Your task to perform on an android device: stop showing notifications on the lock screen Image 0: 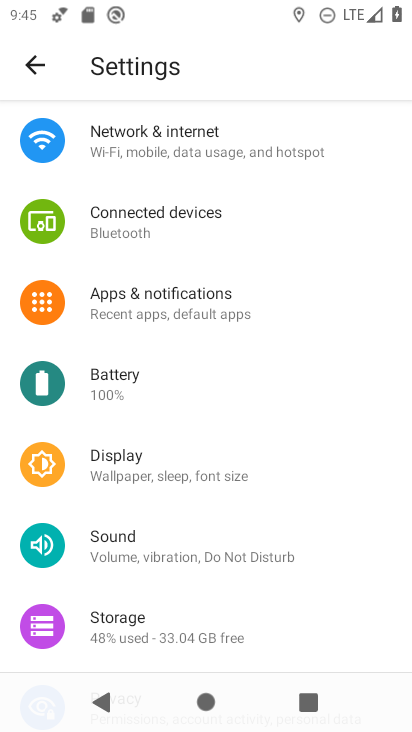
Step 0: press home button
Your task to perform on an android device: stop showing notifications on the lock screen Image 1: 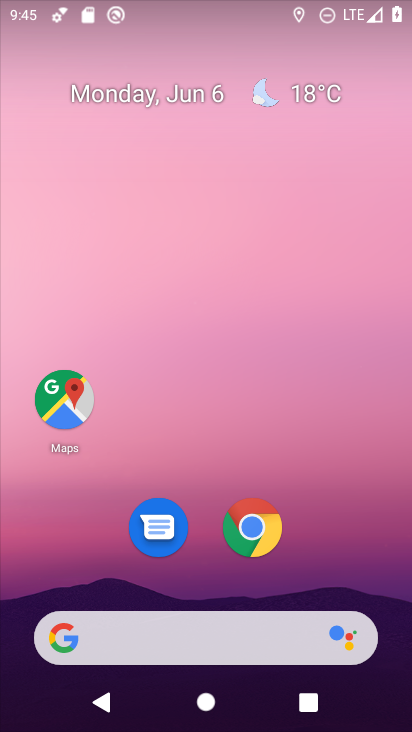
Step 1: drag from (348, 577) to (346, 147)
Your task to perform on an android device: stop showing notifications on the lock screen Image 2: 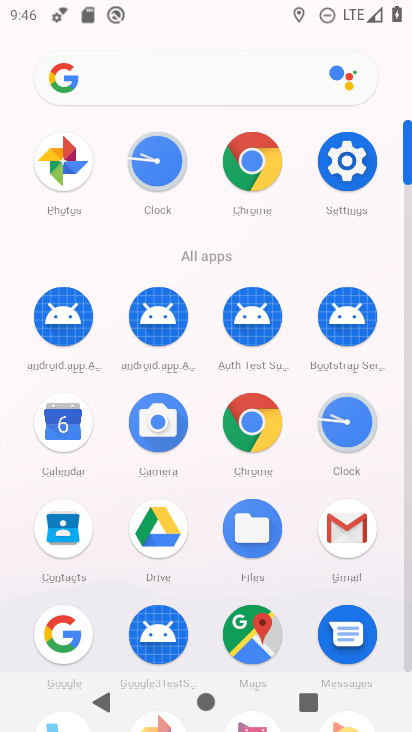
Step 2: click (346, 167)
Your task to perform on an android device: stop showing notifications on the lock screen Image 3: 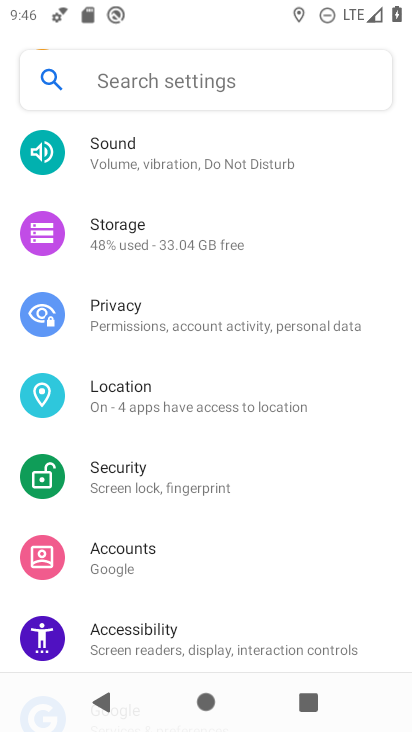
Step 3: drag from (366, 250) to (371, 335)
Your task to perform on an android device: stop showing notifications on the lock screen Image 4: 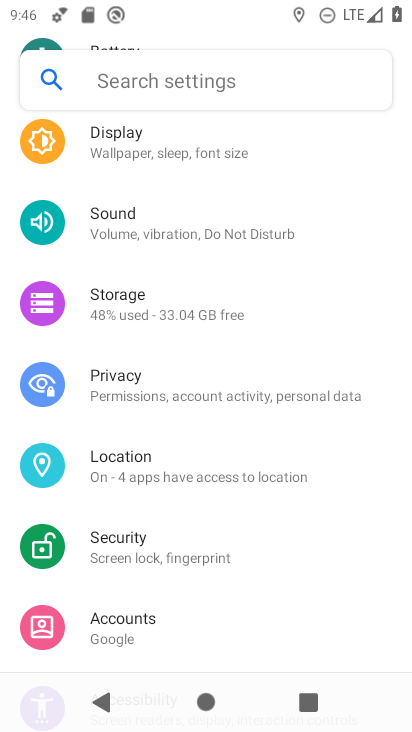
Step 4: drag from (371, 219) to (368, 314)
Your task to perform on an android device: stop showing notifications on the lock screen Image 5: 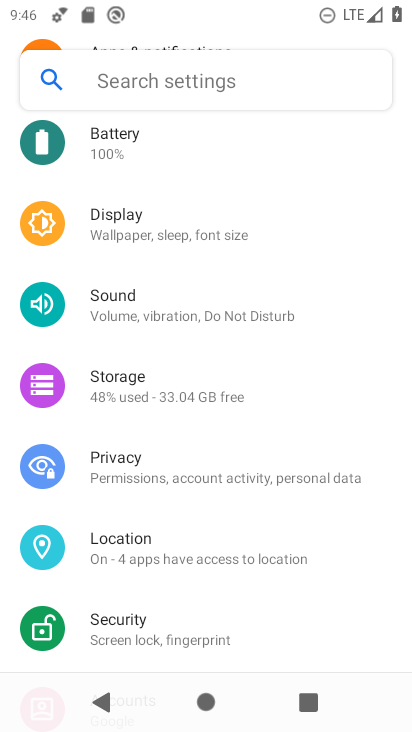
Step 5: drag from (340, 205) to (339, 319)
Your task to perform on an android device: stop showing notifications on the lock screen Image 6: 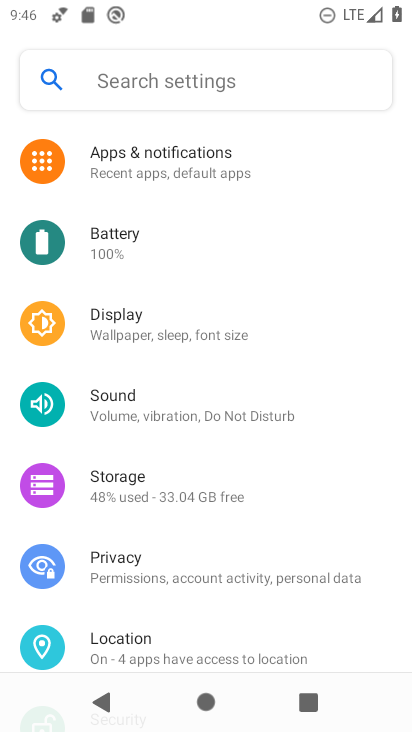
Step 6: drag from (345, 217) to (354, 305)
Your task to perform on an android device: stop showing notifications on the lock screen Image 7: 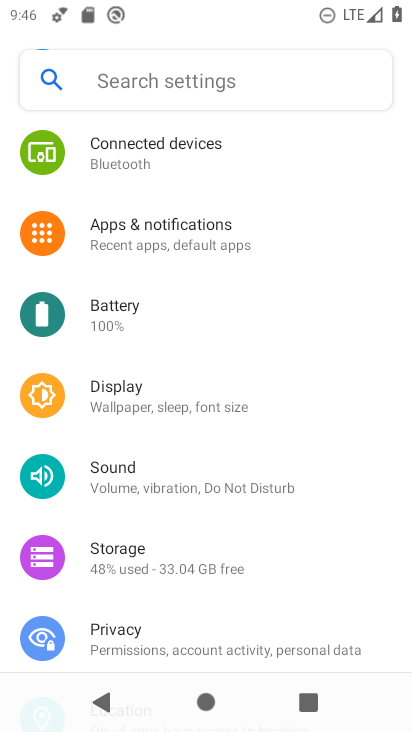
Step 7: drag from (344, 208) to (334, 360)
Your task to perform on an android device: stop showing notifications on the lock screen Image 8: 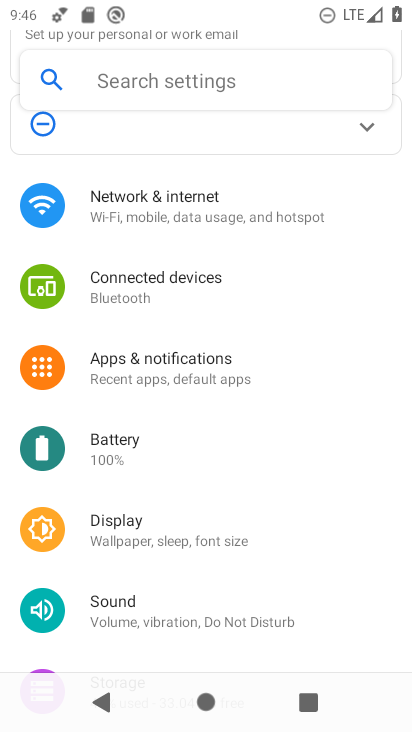
Step 8: drag from (314, 265) to (318, 454)
Your task to perform on an android device: stop showing notifications on the lock screen Image 9: 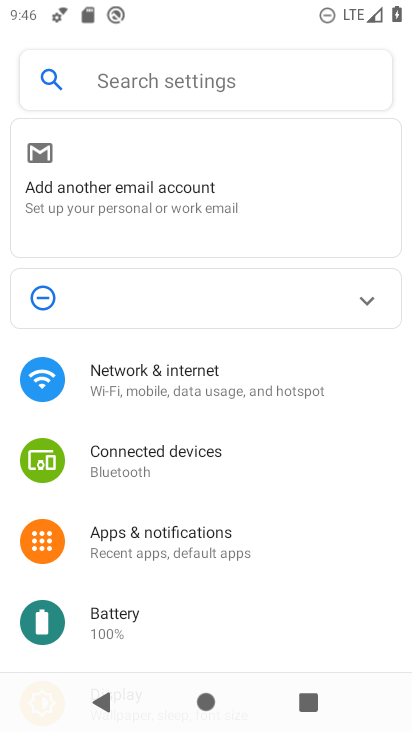
Step 9: drag from (316, 476) to (323, 350)
Your task to perform on an android device: stop showing notifications on the lock screen Image 10: 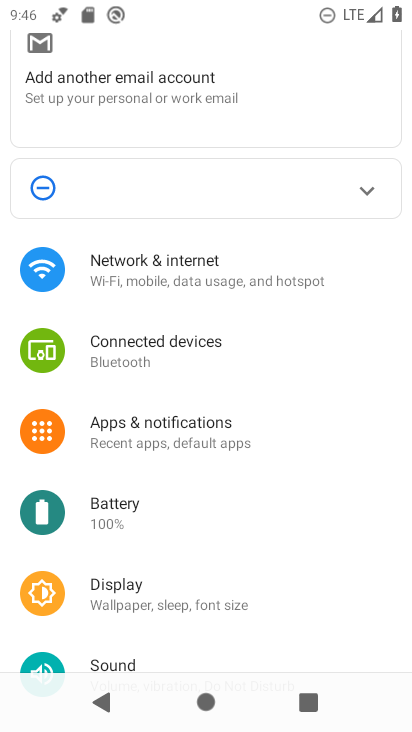
Step 10: drag from (307, 462) to (317, 366)
Your task to perform on an android device: stop showing notifications on the lock screen Image 11: 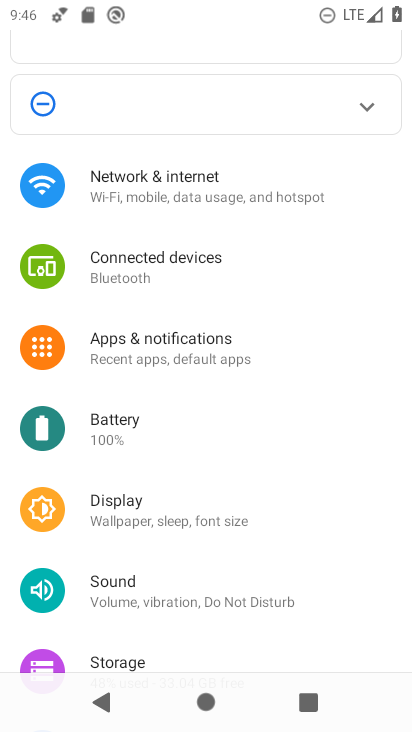
Step 11: click (236, 356)
Your task to perform on an android device: stop showing notifications on the lock screen Image 12: 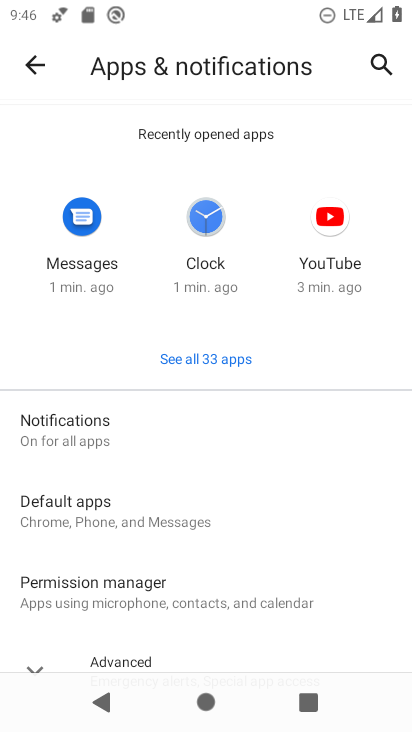
Step 12: click (136, 448)
Your task to perform on an android device: stop showing notifications on the lock screen Image 13: 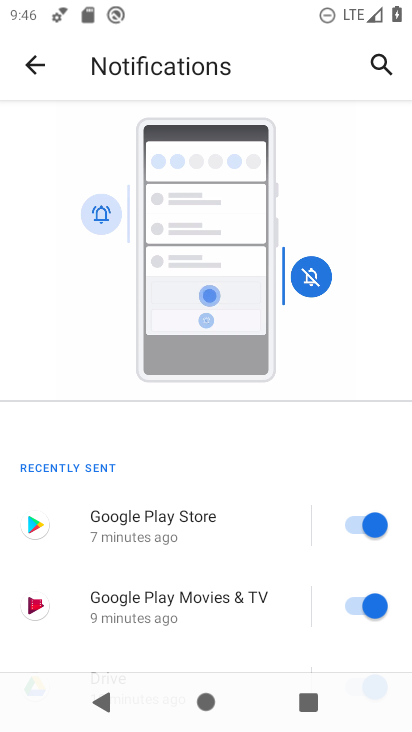
Step 13: drag from (275, 510) to (261, 315)
Your task to perform on an android device: stop showing notifications on the lock screen Image 14: 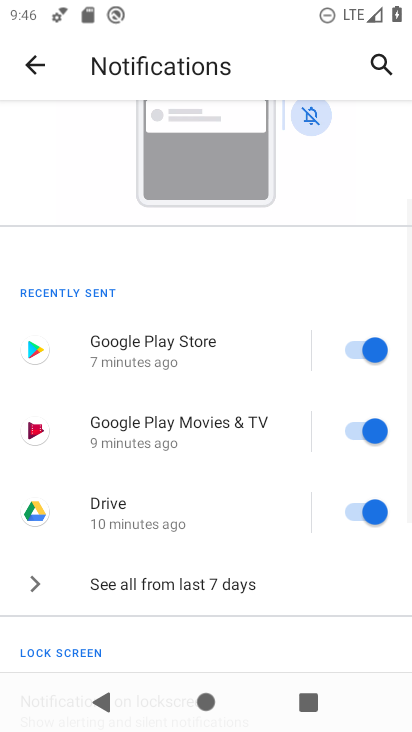
Step 14: drag from (250, 517) to (262, 391)
Your task to perform on an android device: stop showing notifications on the lock screen Image 15: 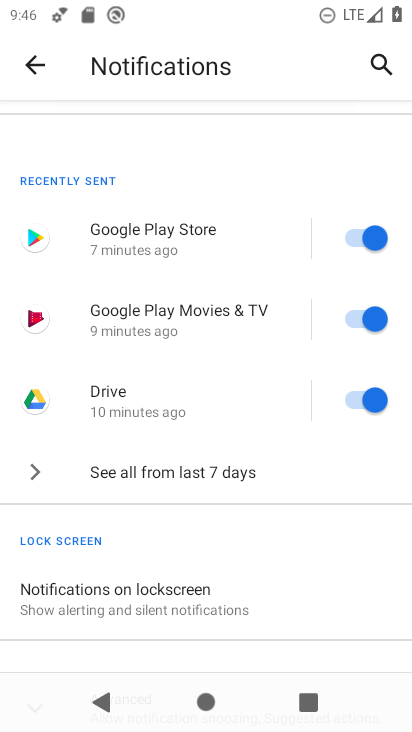
Step 15: drag from (265, 542) to (271, 397)
Your task to perform on an android device: stop showing notifications on the lock screen Image 16: 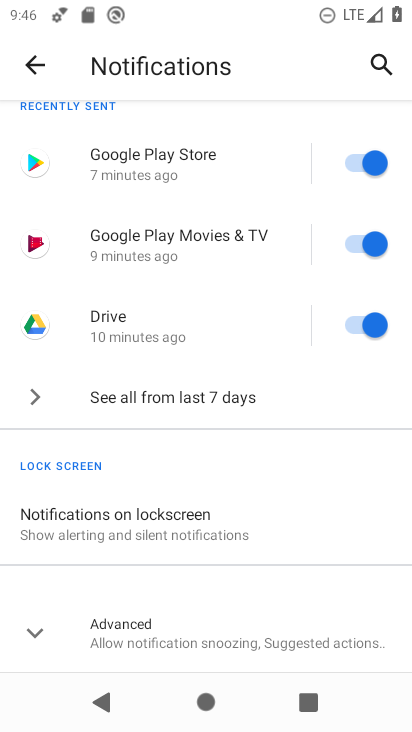
Step 16: click (205, 529)
Your task to perform on an android device: stop showing notifications on the lock screen Image 17: 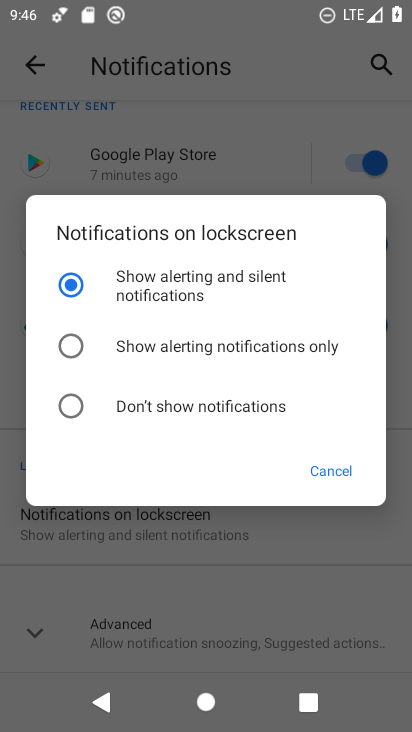
Step 17: click (154, 403)
Your task to perform on an android device: stop showing notifications on the lock screen Image 18: 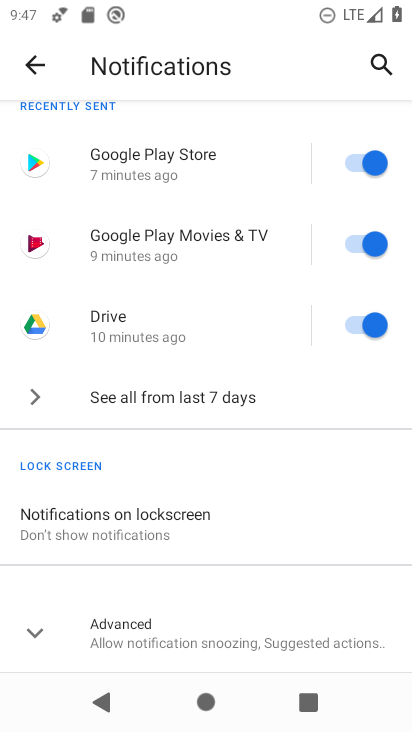
Step 18: task complete